Your task to perform on an android device: Look up the book "The Girl on the Train". Image 0: 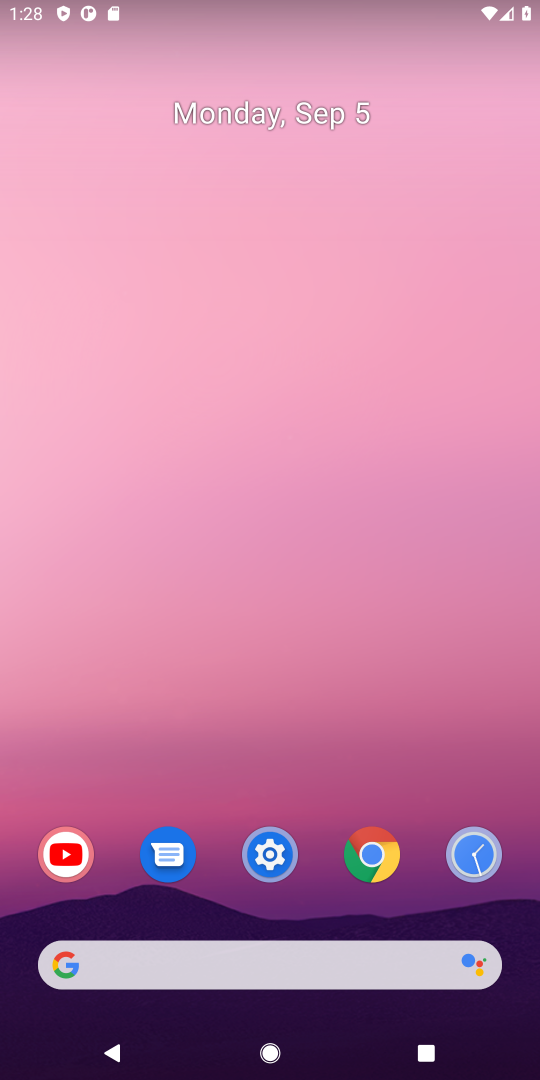
Step 0: click (297, 961)
Your task to perform on an android device: Look up the book "The Girl on the Train". Image 1: 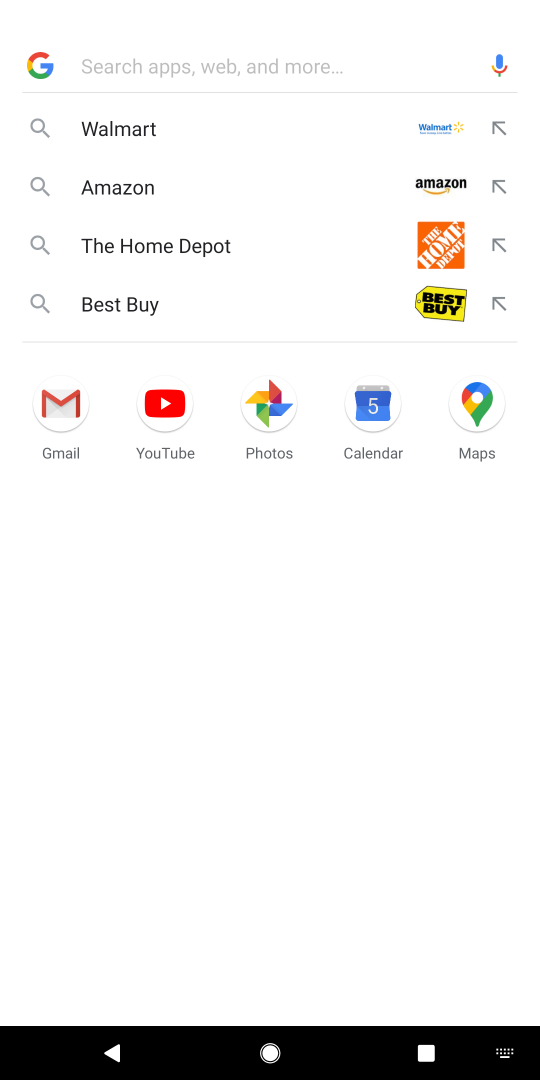
Step 1: type "The Girl on the Train"
Your task to perform on an android device: Look up the book "The Girl on the Train". Image 2: 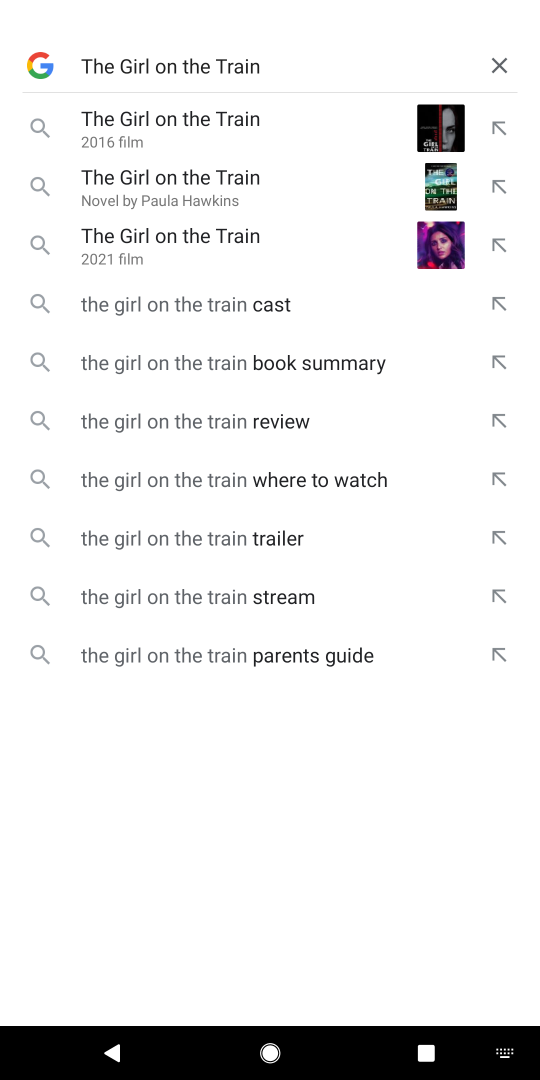
Step 2: click (209, 123)
Your task to perform on an android device: Look up the book "The Girl on the Train". Image 3: 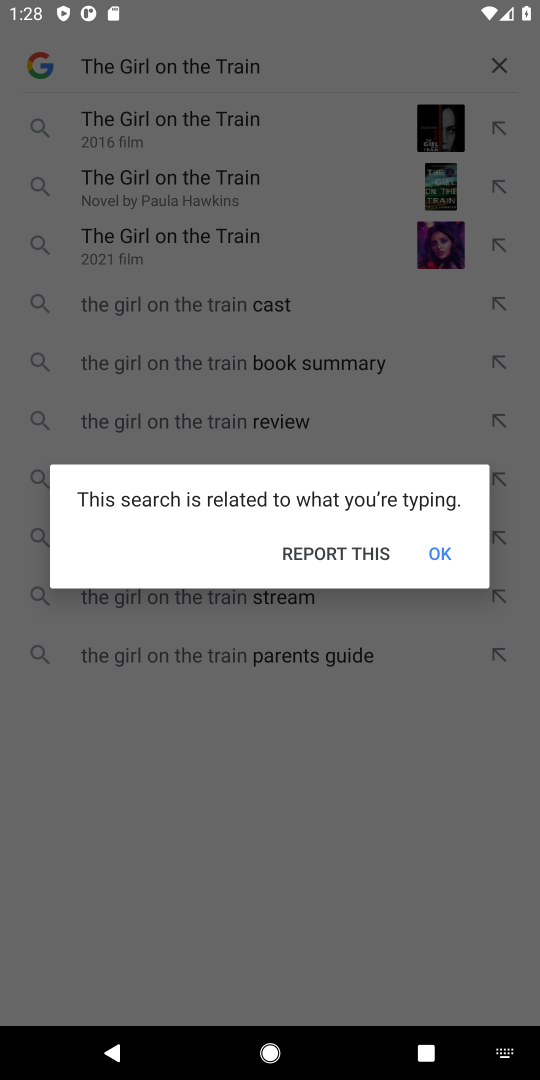
Step 3: click (452, 564)
Your task to perform on an android device: Look up the book "The Girl on the Train". Image 4: 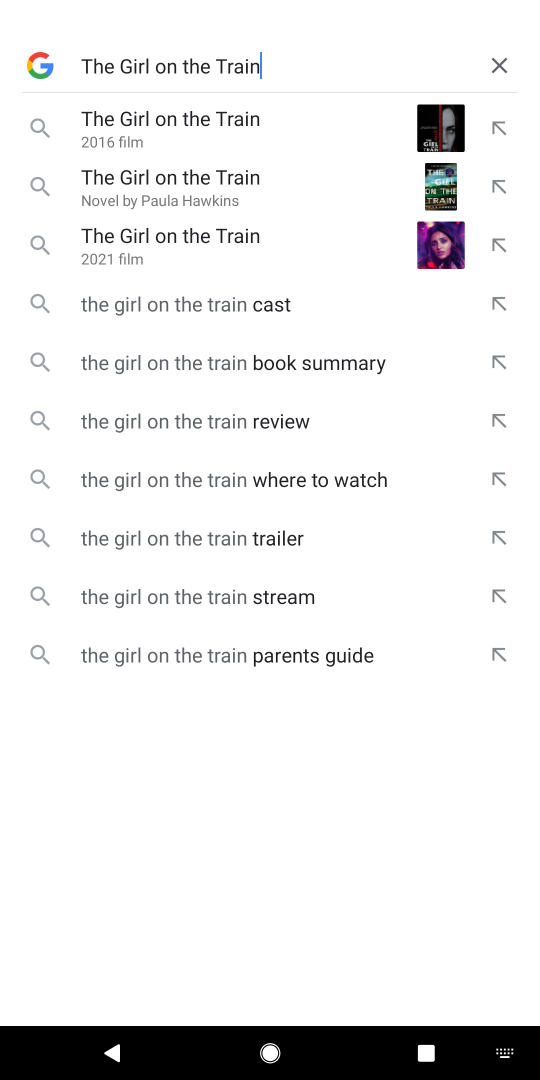
Step 4: click (201, 134)
Your task to perform on an android device: Look up the book "The Girl on the Train". Image 5: 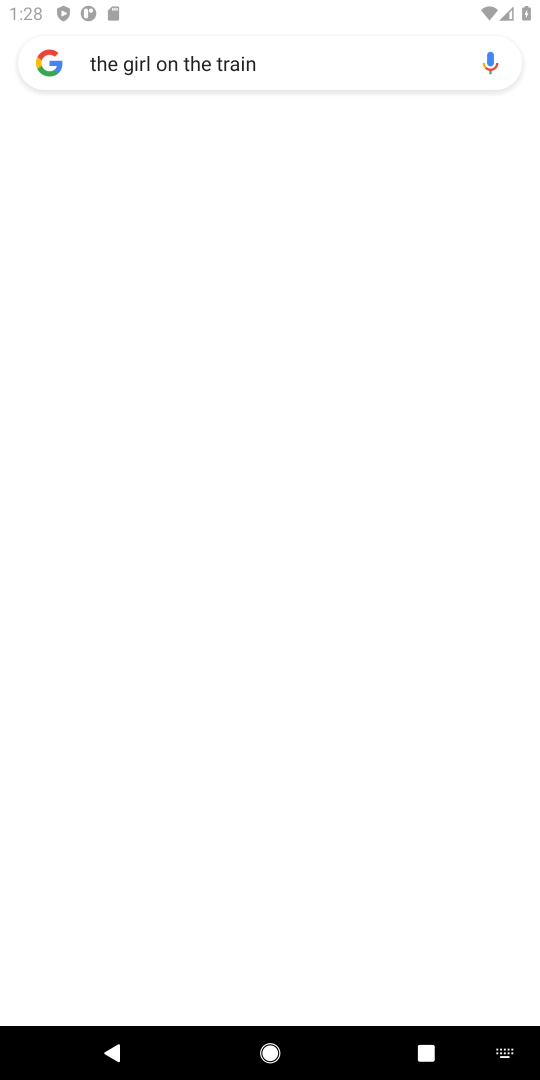
Step 5: click (221, 120)
Your task to perform on an android device: Look up the book "The Girl on the Train". Image 6: 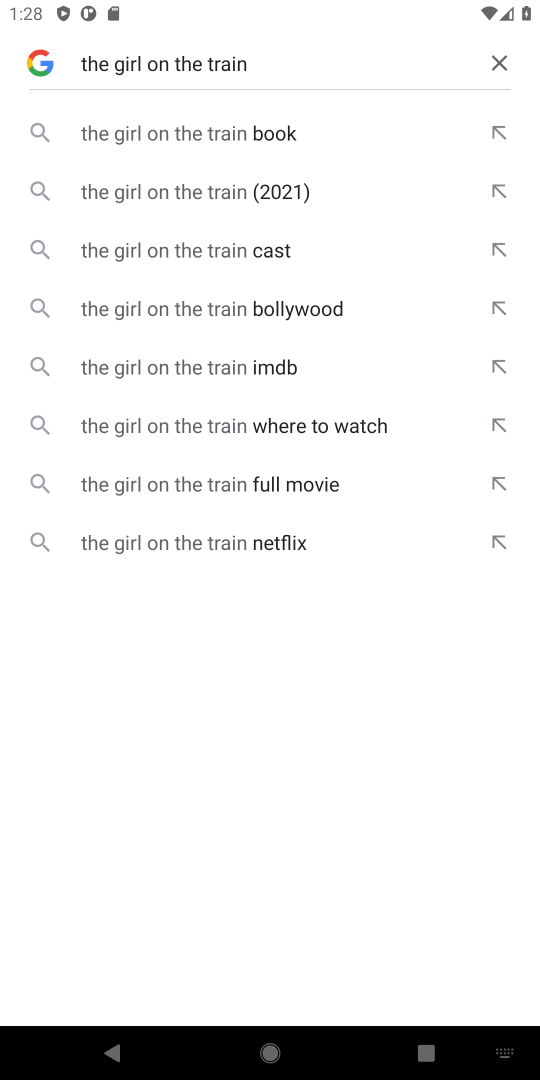
Step 6: click (264, 143)
Your task to perform on an android device: Look up the book "The Girl on the Train". Image 7: 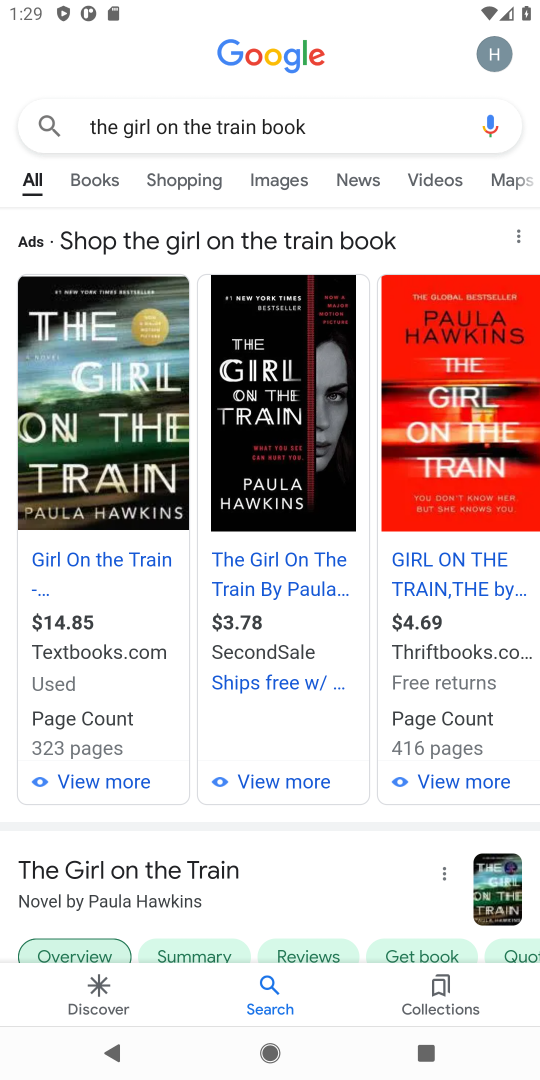
Step 7: task complete